Your task to perform on an android device: toggle javascript in the chrome app Image 0: 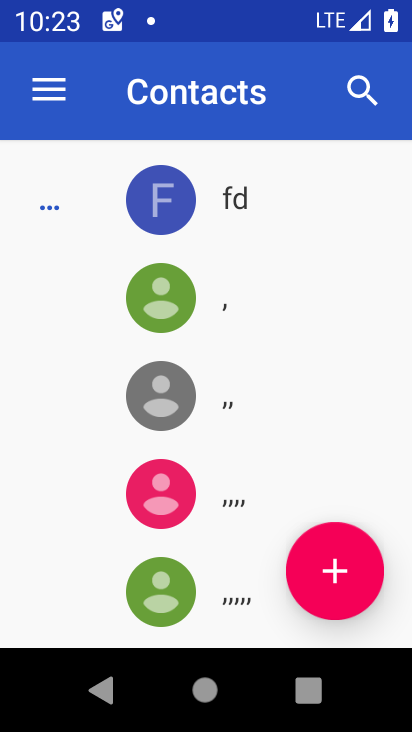
Step 0: drag from (397, 628) to (387, 294)
Your task to perform on an android device: toggle javascript in the chrome app Image 1: 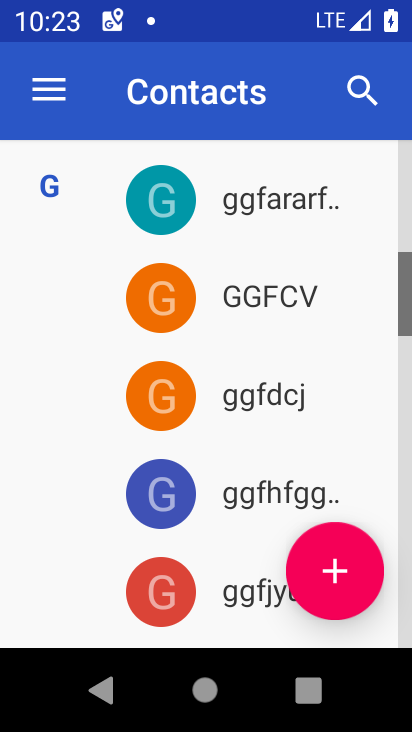
Step 1: press home button
Your task to perform on an android device: toggle javascript in the chrome app Image 2: 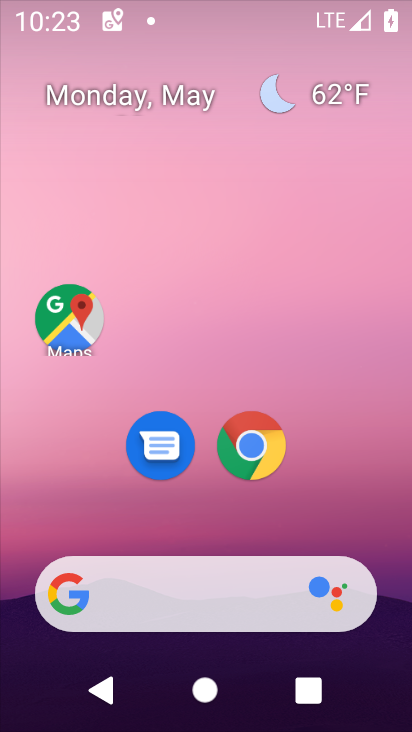
Step 2: drag from (376, 634) to (268, 52)
Your task to perform on an android device: toggle javascript in the chrome app Image 3: 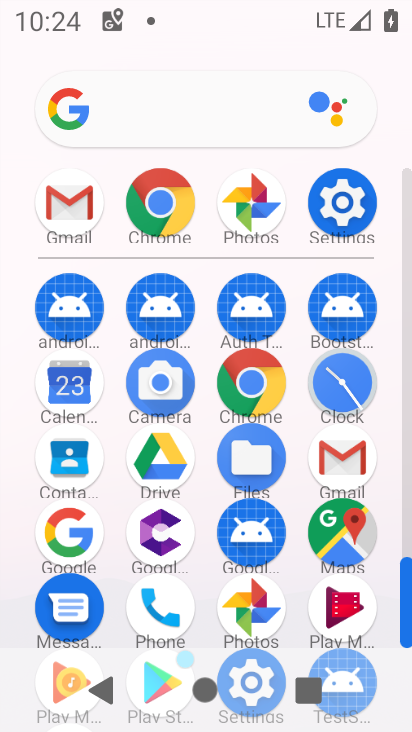
Step 3: click (248, 375)
Your task to perform on an android device: toggle javascript in the chrome app Image 4: 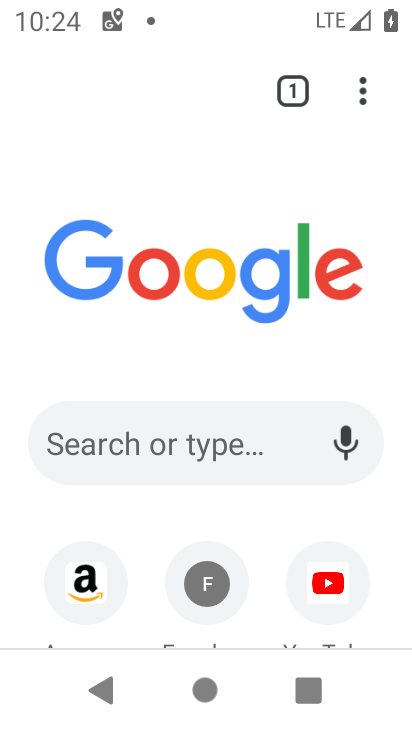
Step 4: click (363, 91)
Your task to perform on an android device: toggle javascript in the chrome app Image 5: 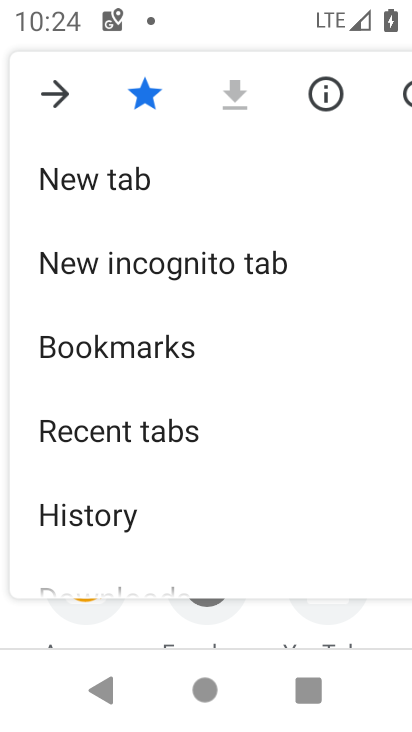
Step 5: drag from (172, 544) to (233, 144)
Your task to perform on an android device: toggle javascript in the chrome app Image 6: 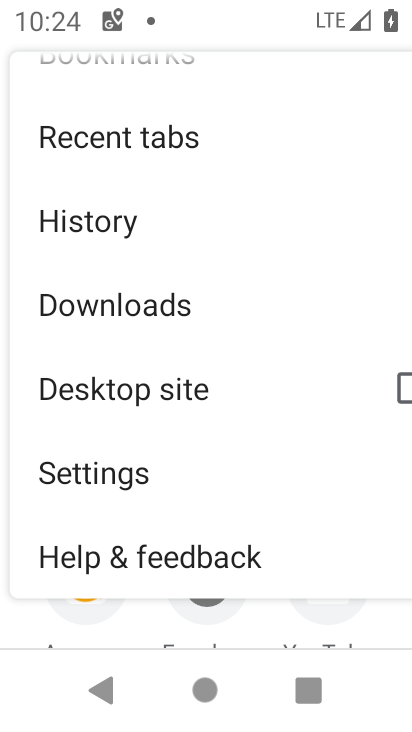
Step 6: click (119, 485)
Your task to perform on an android device: toggle javascript in the chrome app Image 7: 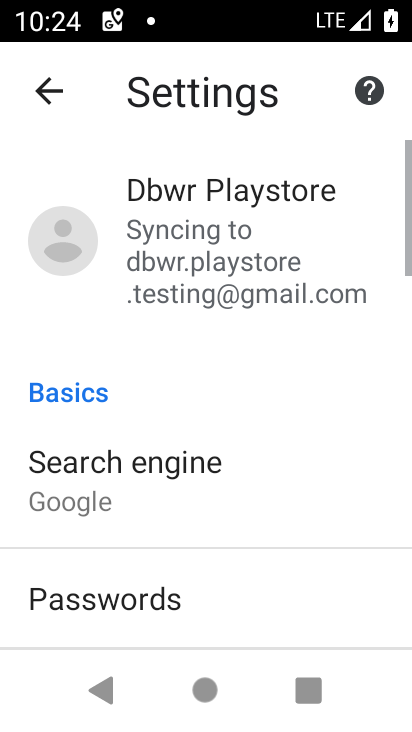
Step 7: drag from (143, 601) to (190, 117)
Your task to perform on an android device: toggle javascript in the chrome app Image 8: 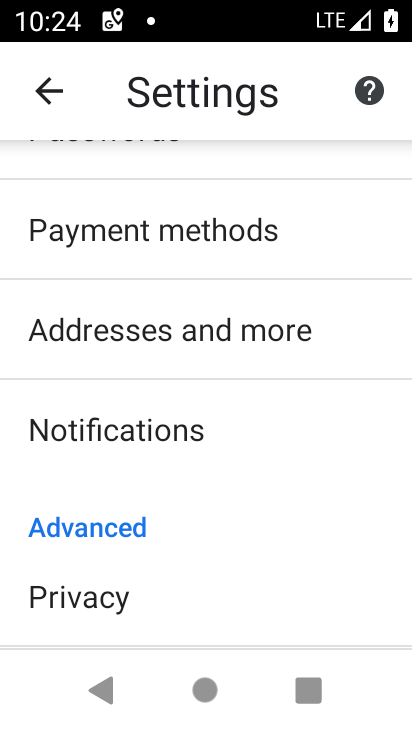
Step 8: drag from (166, 611) to (170, 272)
Your task to perform on an android device: toggle javascript in the chrome app Image 9: 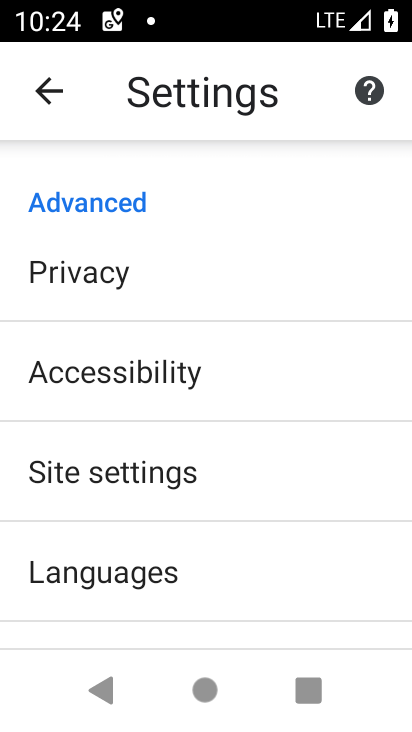
Step 9: click (168, 467)
Your task to perform on an android device: toggle javascript in the chrome app Image 10: 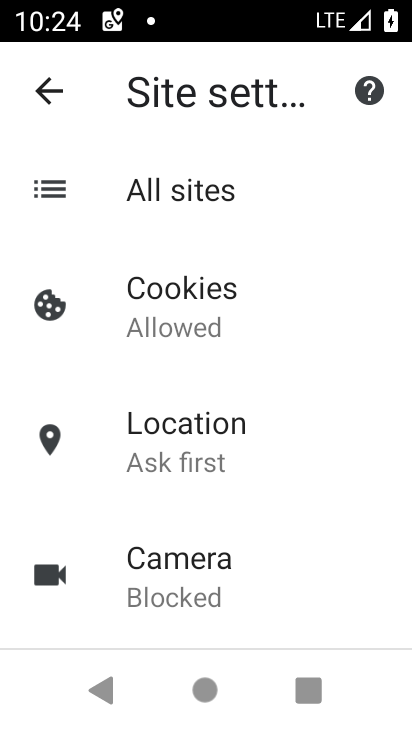
Step 10: drag from (208, 626) to (252, 216)
Your task to perform on an android device: toggle javascript in the chrome app Image 11: 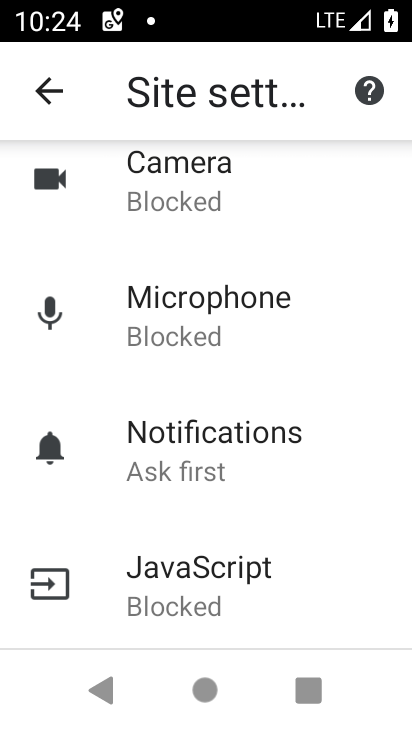
Step 11: click (236, 584)
Your task to perform on an android device: toggle javascript in the chrome app Image 12: 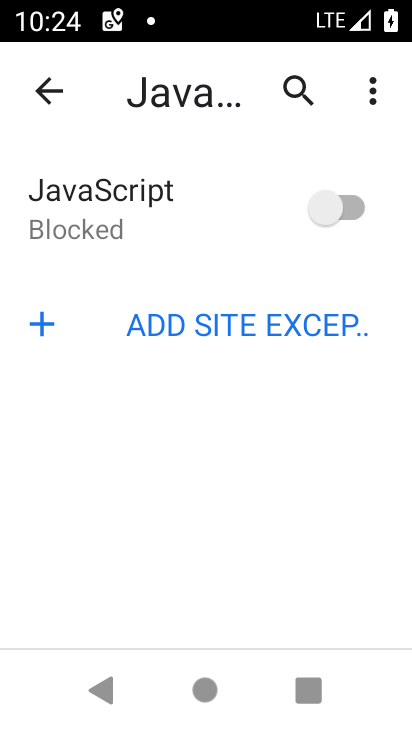
Step 12: click (285, 223)
Your task to perform on an android device: toggle javascript in the chrome app Image 13: 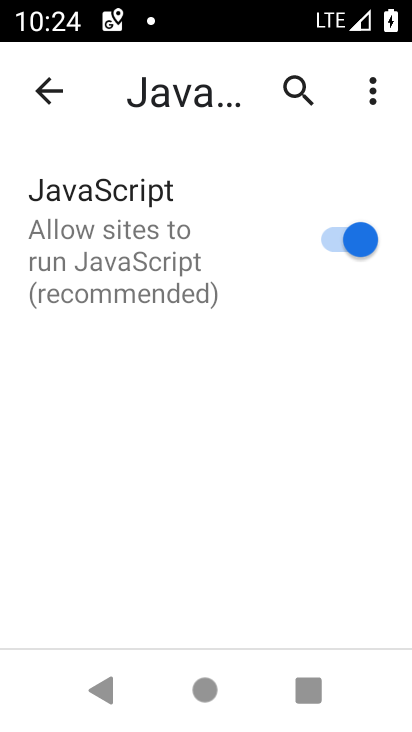
Step 13: task complete